Your task to perform on an android device: Go to settings Image 0: 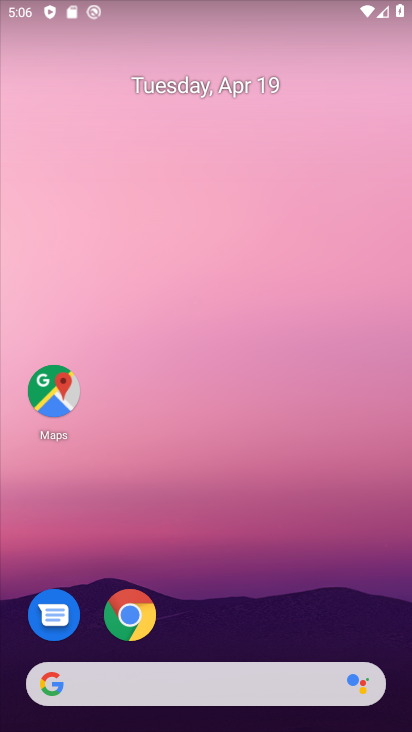
Step 0: drag from (210, 727) to (205, 79)
Your task to perform on an android device: Go to settings Image 1: 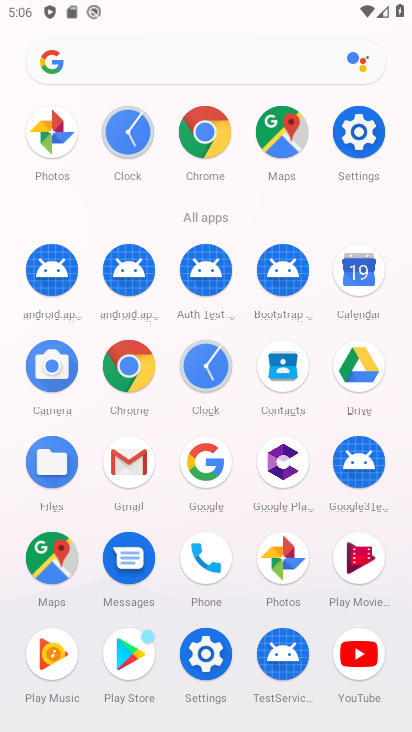
Step 1: click (364, 133)
Your task to perform on an android device: Go to settings Image 2: 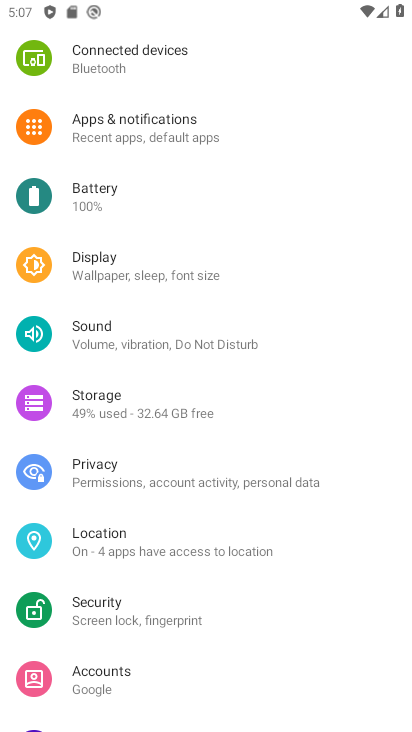
Step 2: task complete